Your task to perform on an android device: open chrome privacy settings Image 0: 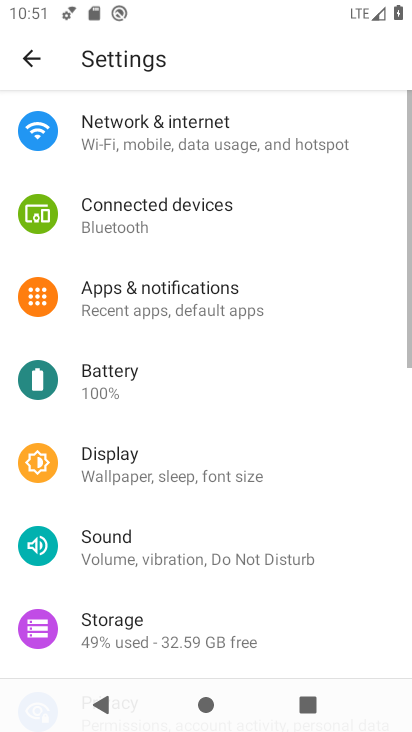
Step 0: press home button
Your task to perform on an android device: open chrome privacy settings Image 1: 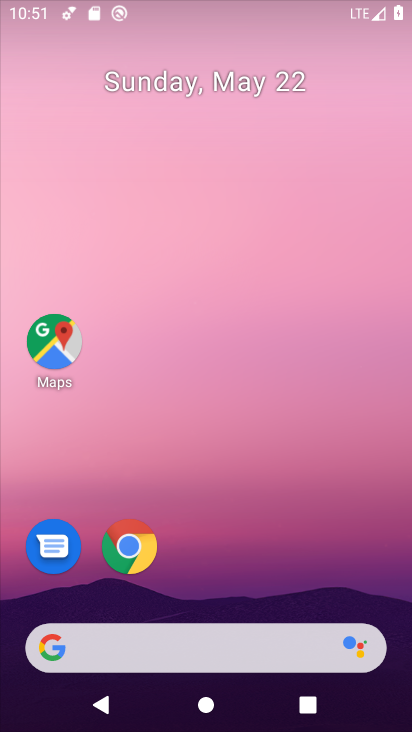
Step 1: drag from (211, 645) to (269, 47)
Your task to perform on an android device: open chrome privacy settings Image 2: 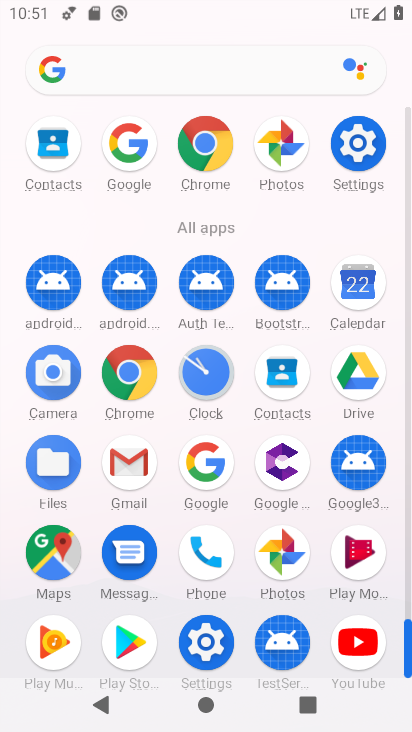
Step 2: click (199, 159)
Your task to perform on an android device: open chrome privacy settings Image 3: 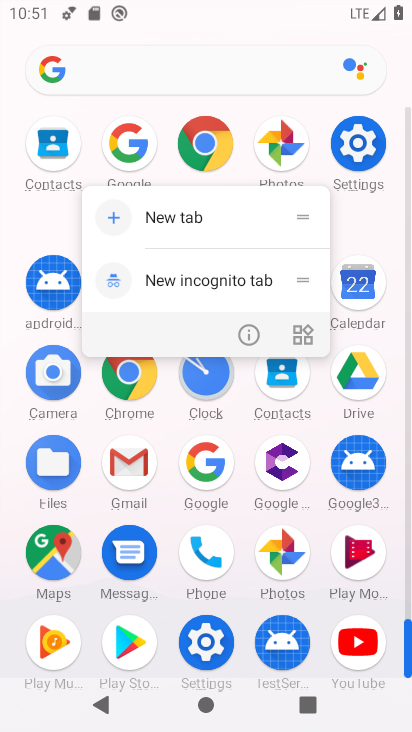
Step 3: click (215, 148)
Your task to perform on an android device: open chrome privacy settings Image 4: 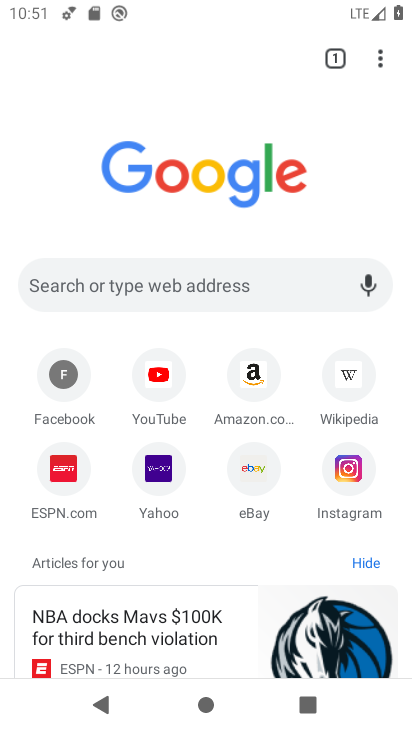
Step 4: click (386, 69)
Your task to perform on an android device: open chrome privacy settings Image 5: 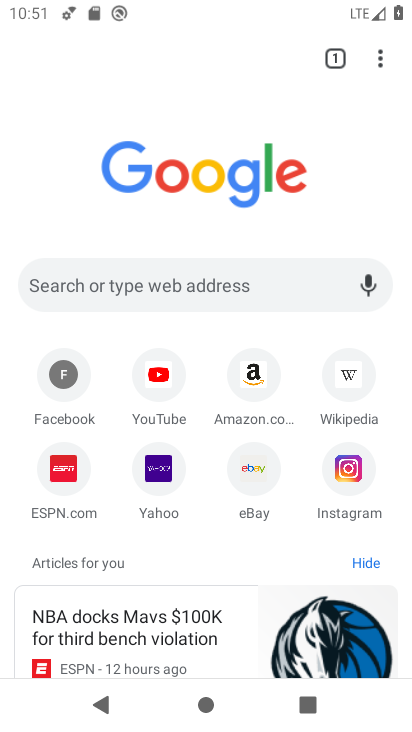
Step 5: click (376, 65)
Your task to perform on an android device: open chrome privacy settings Image 6: 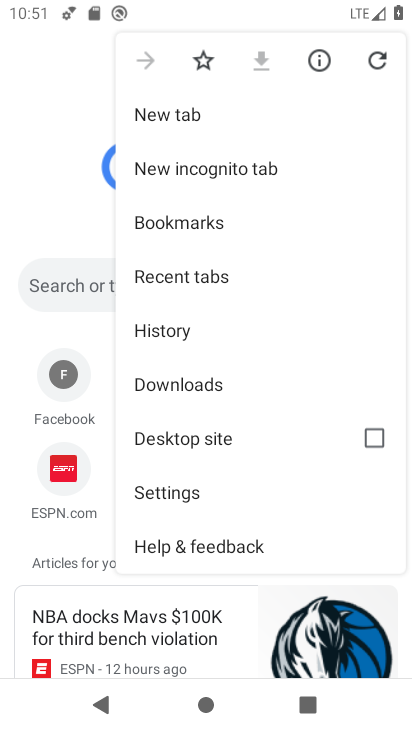
Step 6: drag from (260, 449) to (298, 265)
Your task to perform on an android device: open chrome privacy settings Image 7: 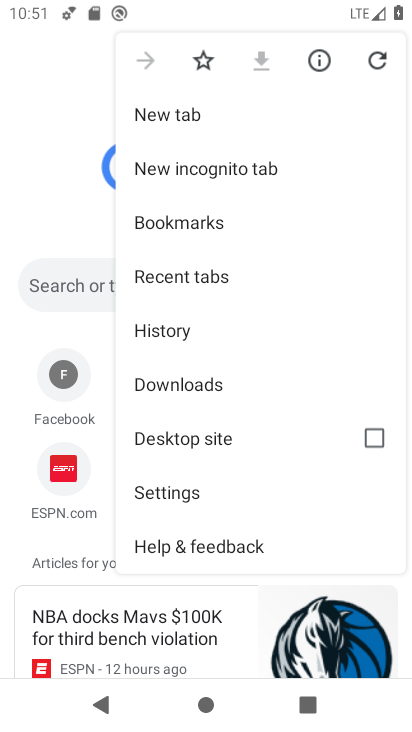
Step 7: click (188, 488)
Your task to perform on an android device: open chrome privacy settings Image 8: 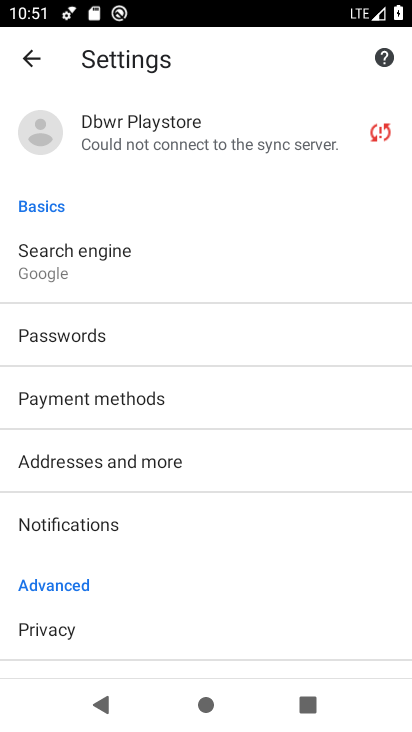
Step 8: drag from (172, 552) to (230, 149)
Your task to perform on an android device: open chrome privacy settings Image 9: 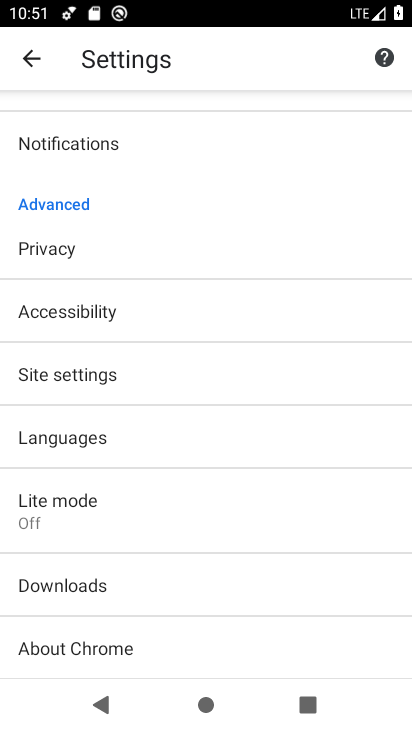
Step 9: click (81, 259)
Your task to perform on an android device: open chrome privacy settings Image 10: 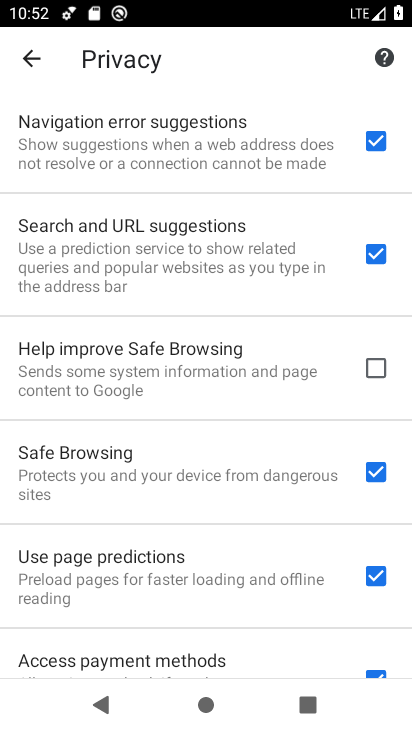
Step 10: task complete